Your task to perform on an android device: Search for the best rated wireless headphones on Amazon. Image 0: 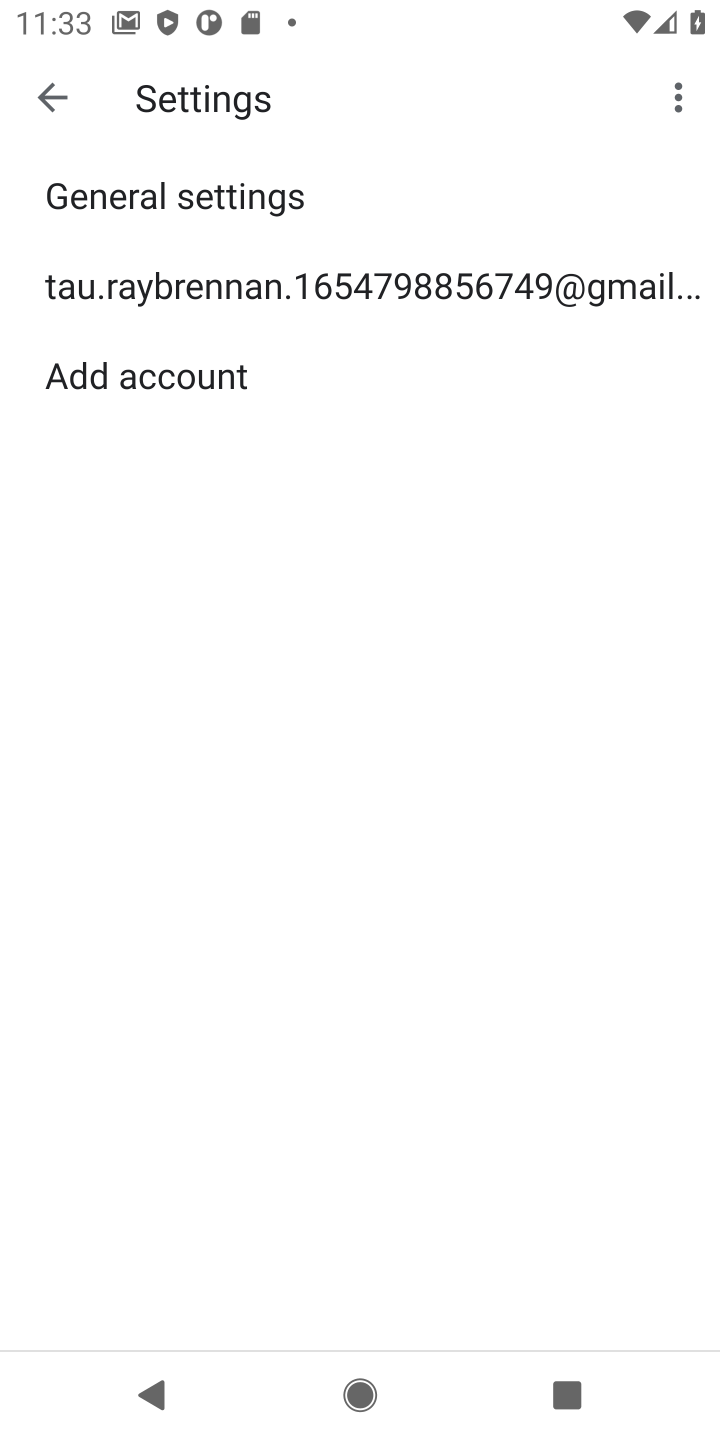
Step 0: press home button
Your task to perform on an android device: Search for the best rated wireless headphones on Amazon. Image 1: 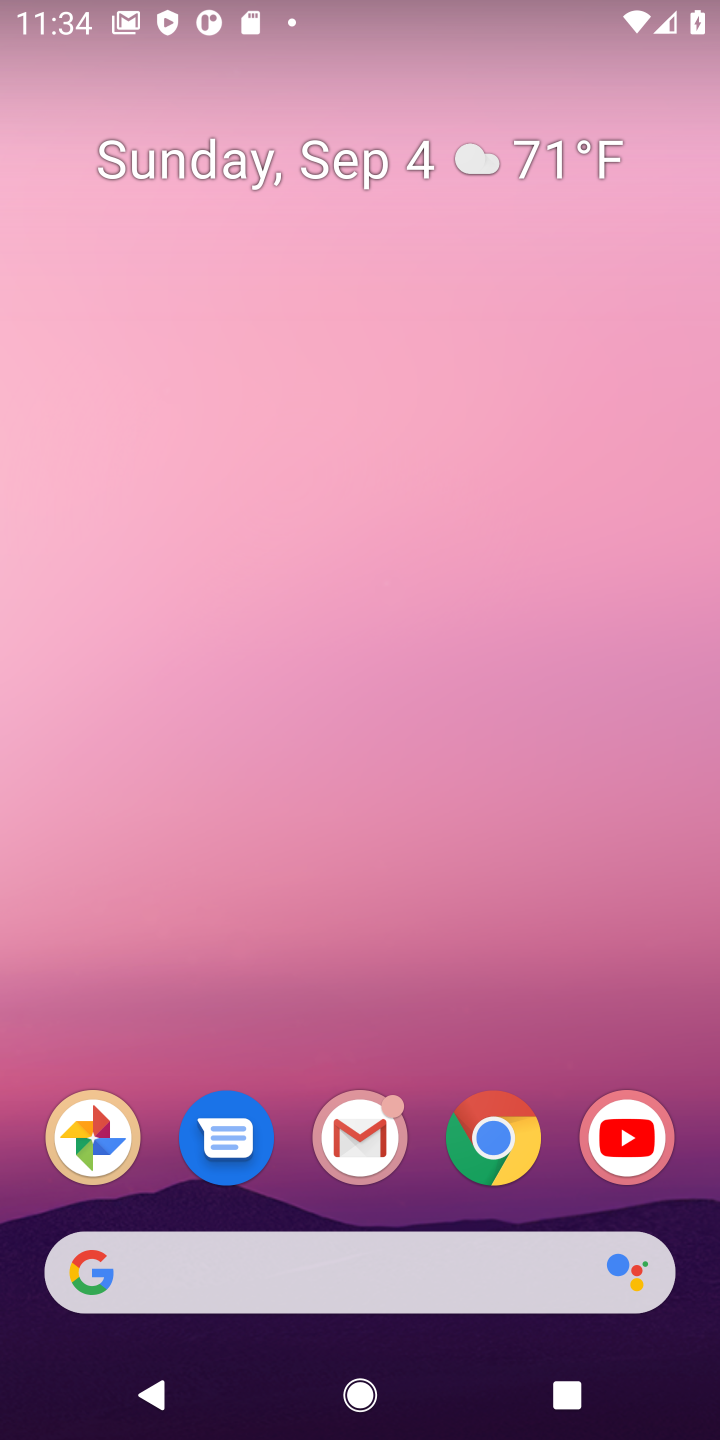
Step 1: click (499, 1132)
Your task to perform on an android device: Search for the best rated wireless headphones on Amazon. Image 2: 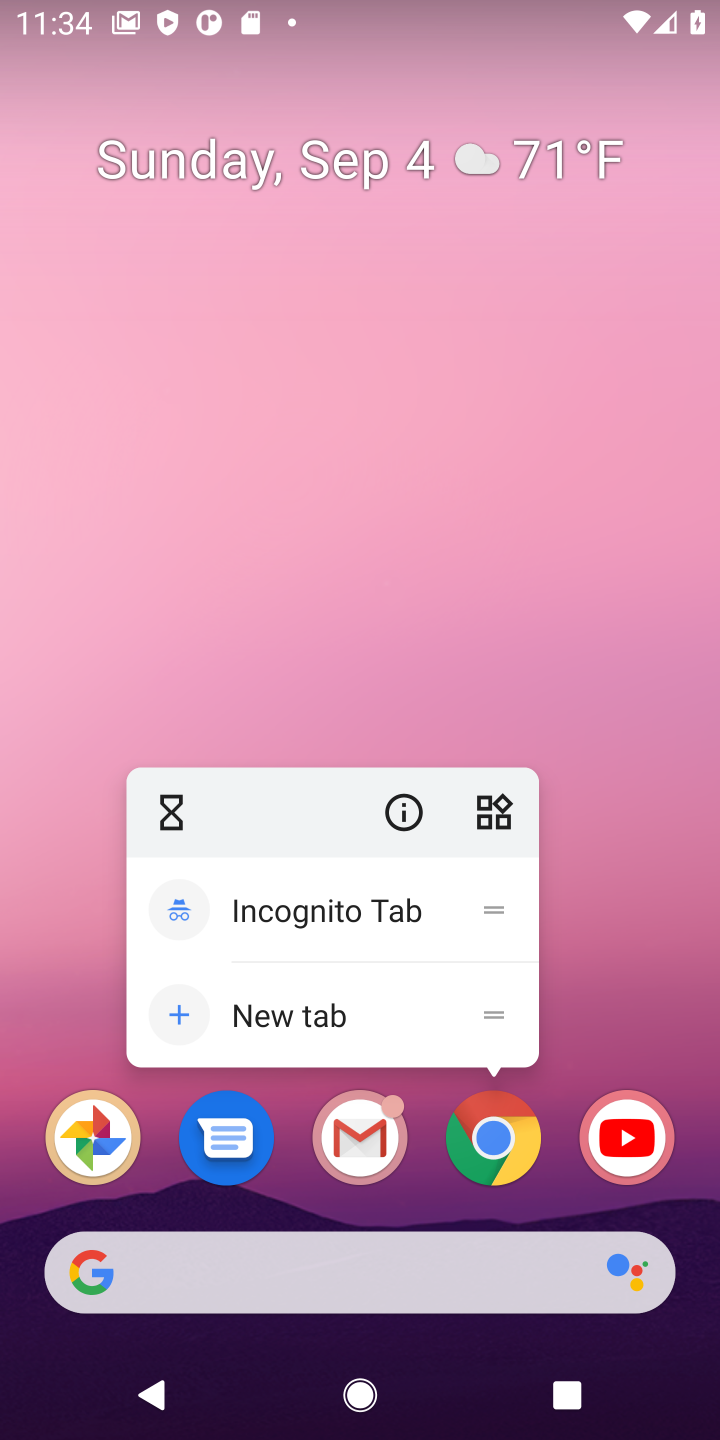
Step 2: click (509, 1132)
Your task to perform on an android device: Search for the best rated wireless headphones on Amazon. Image 3: 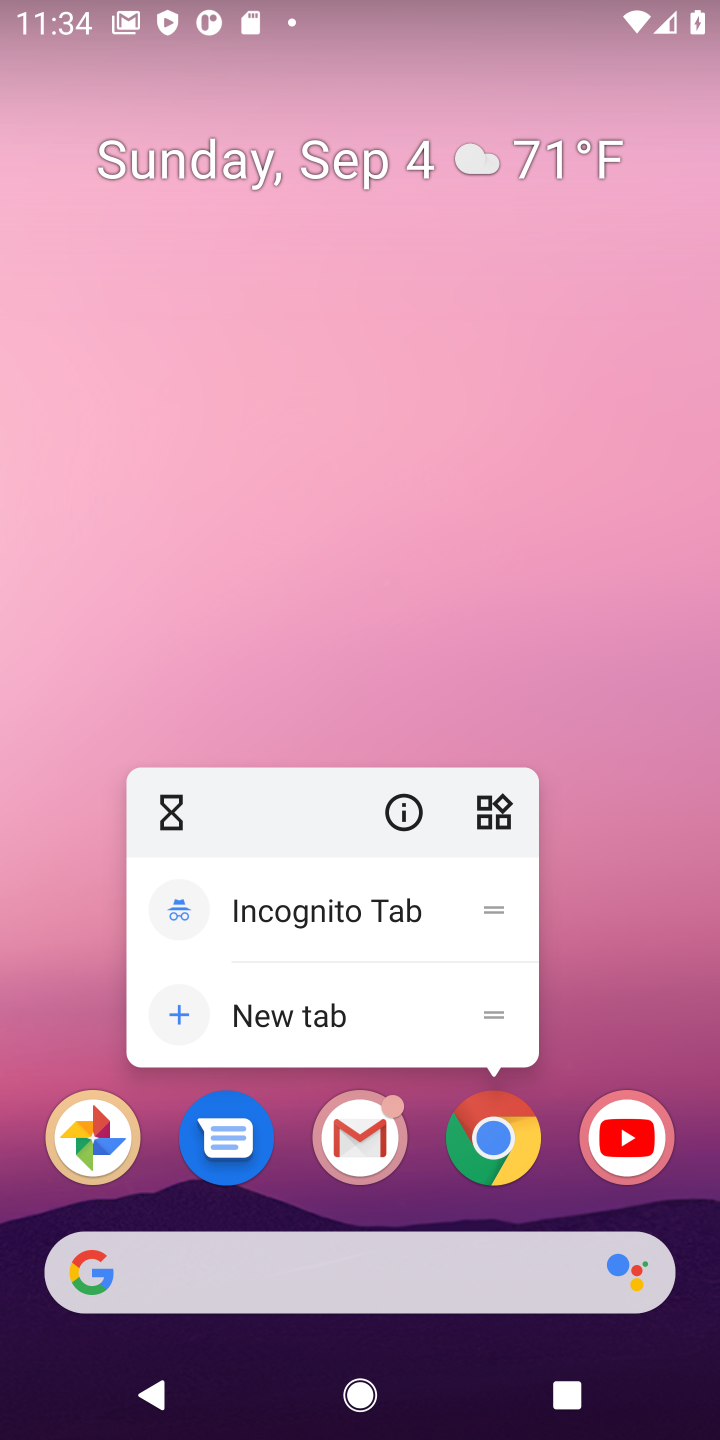
Step 3: click (470, 1158)
Your task to perform on an android device: Search for the best rated wireless headphones on Amazon. Image 4: 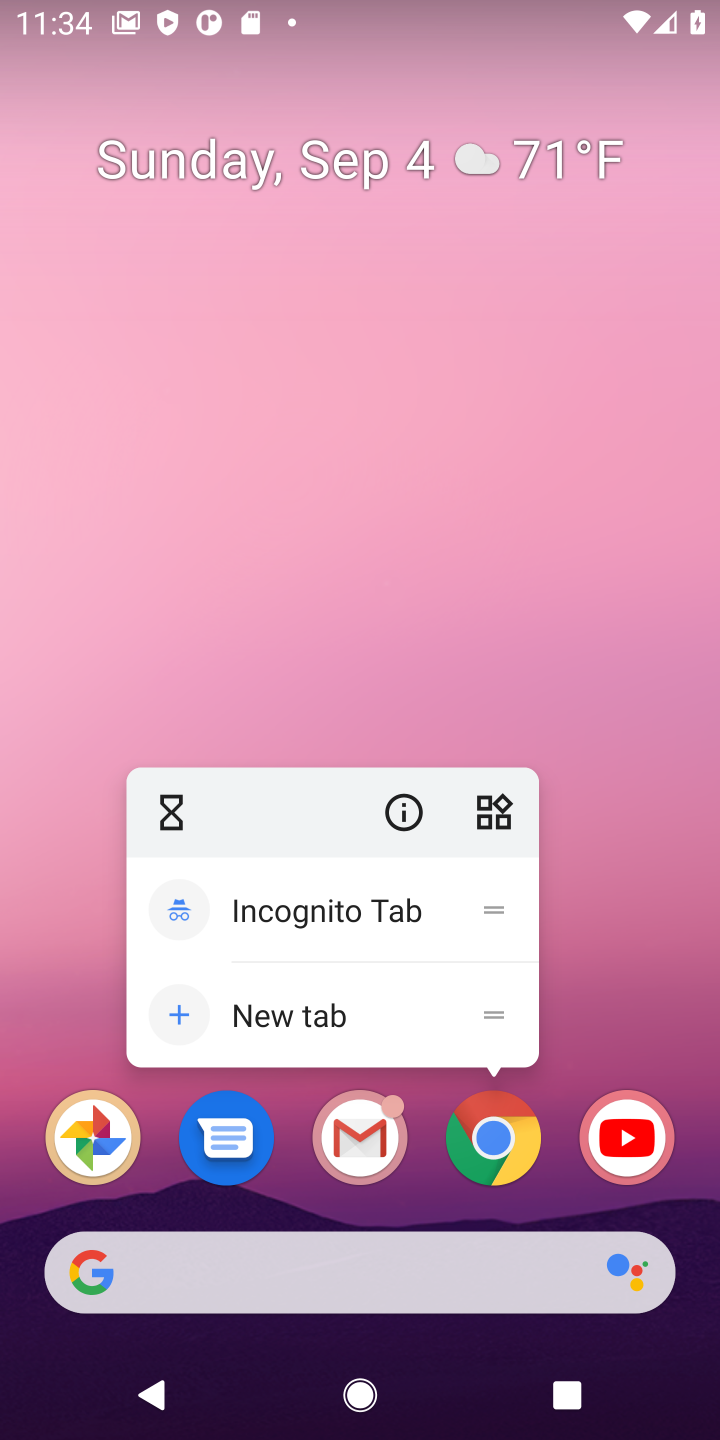
Step 4: click (517, 1141)
Your task to perform on an android device: Search for the best rated wireless headphones on Amazon. Image 5: 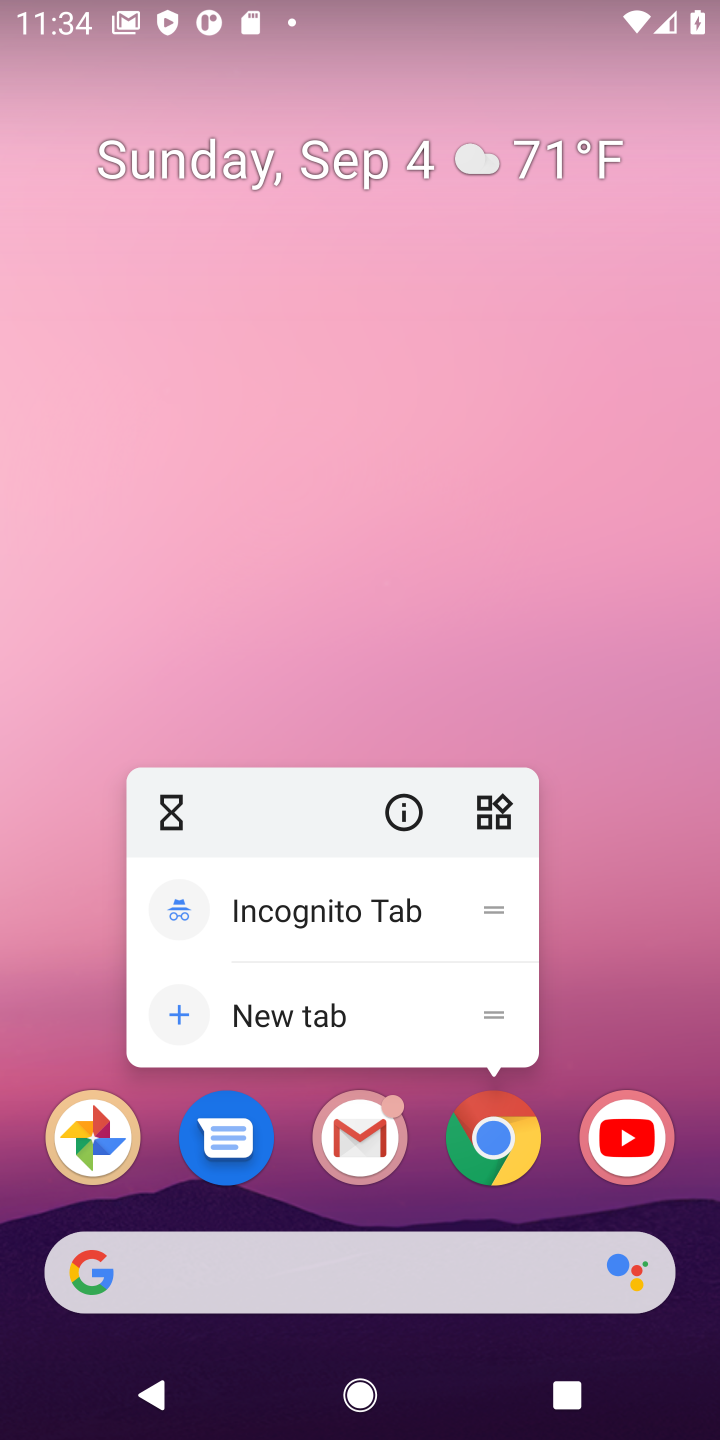
Step 5: click (517, 1141)
Your task to perform on an android device: Search for the best rated wireless headphones on Amazon. Image 6: 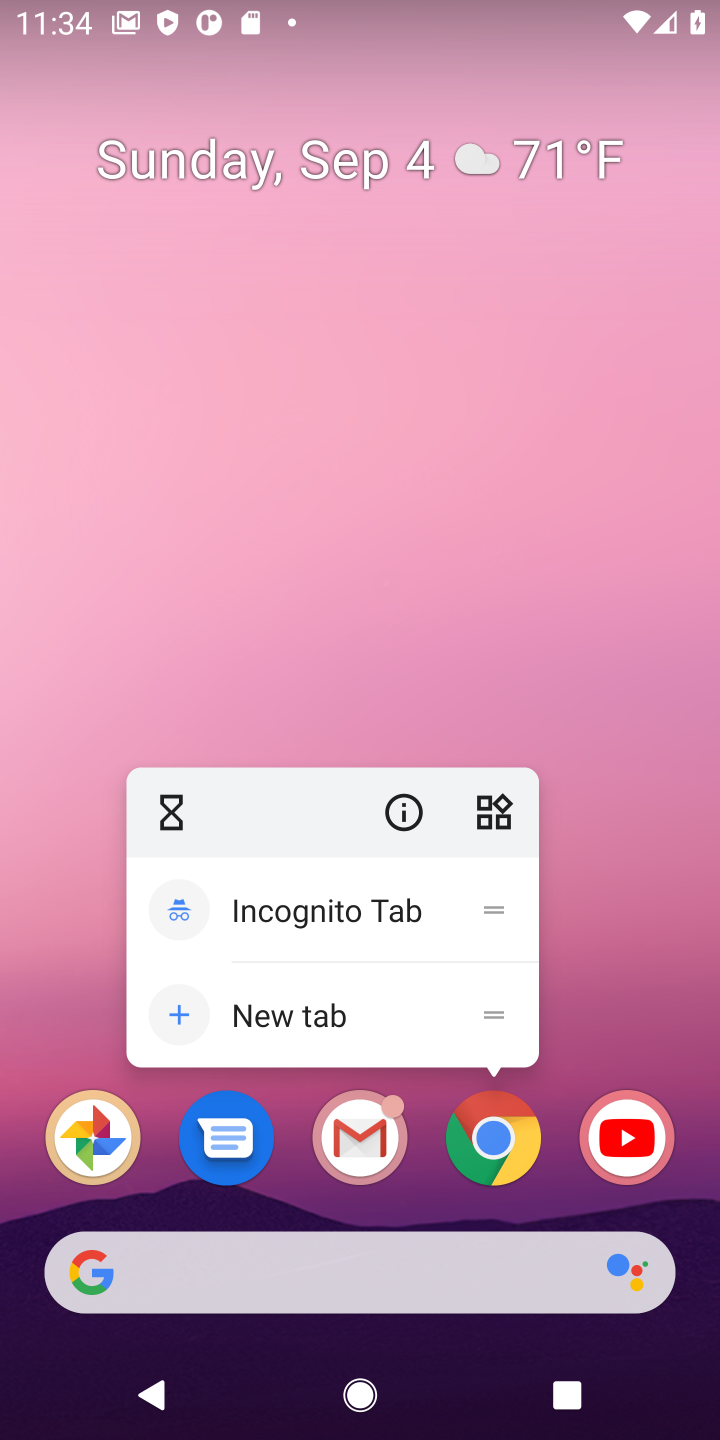
Step 6: click (511, 1133)
Your task to perform on an android device: Search for the best rated wireless headphones on Amazon. Image 7: 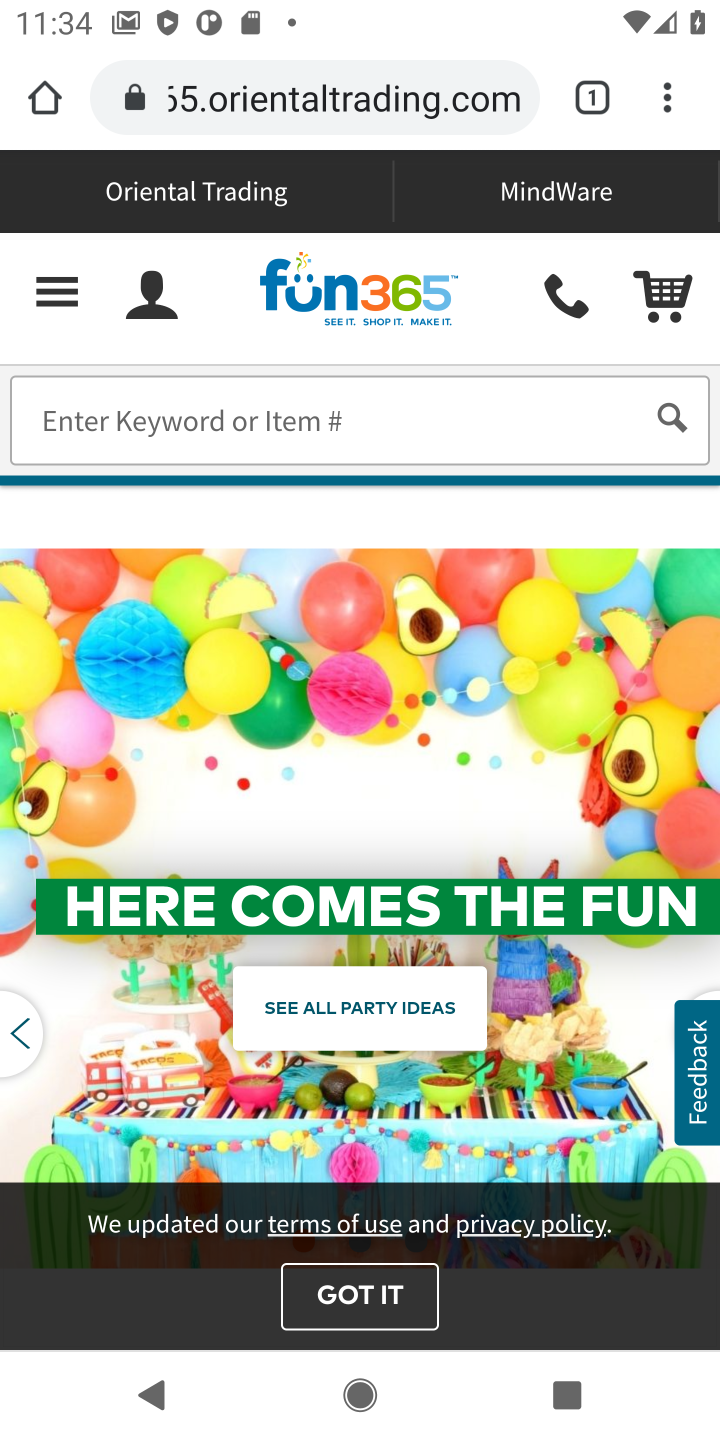
Step 7: click (413, 109)
Your task to perform on an android device: Search for the best rated wireless headphones on Amazon. Image 8: 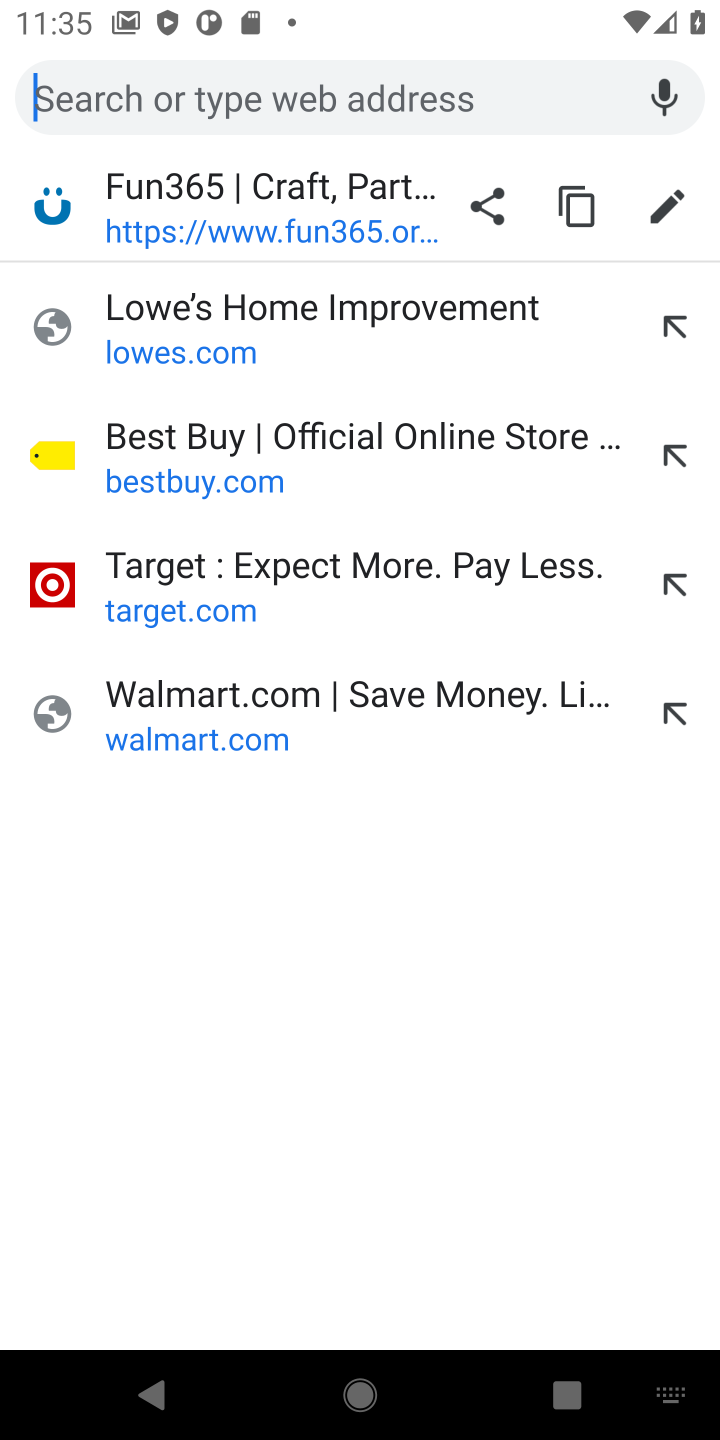
Step 8: type "amazon"
Your task to perform on an android device: Search for the best rated wireless headphones on Amazon. Image 9: 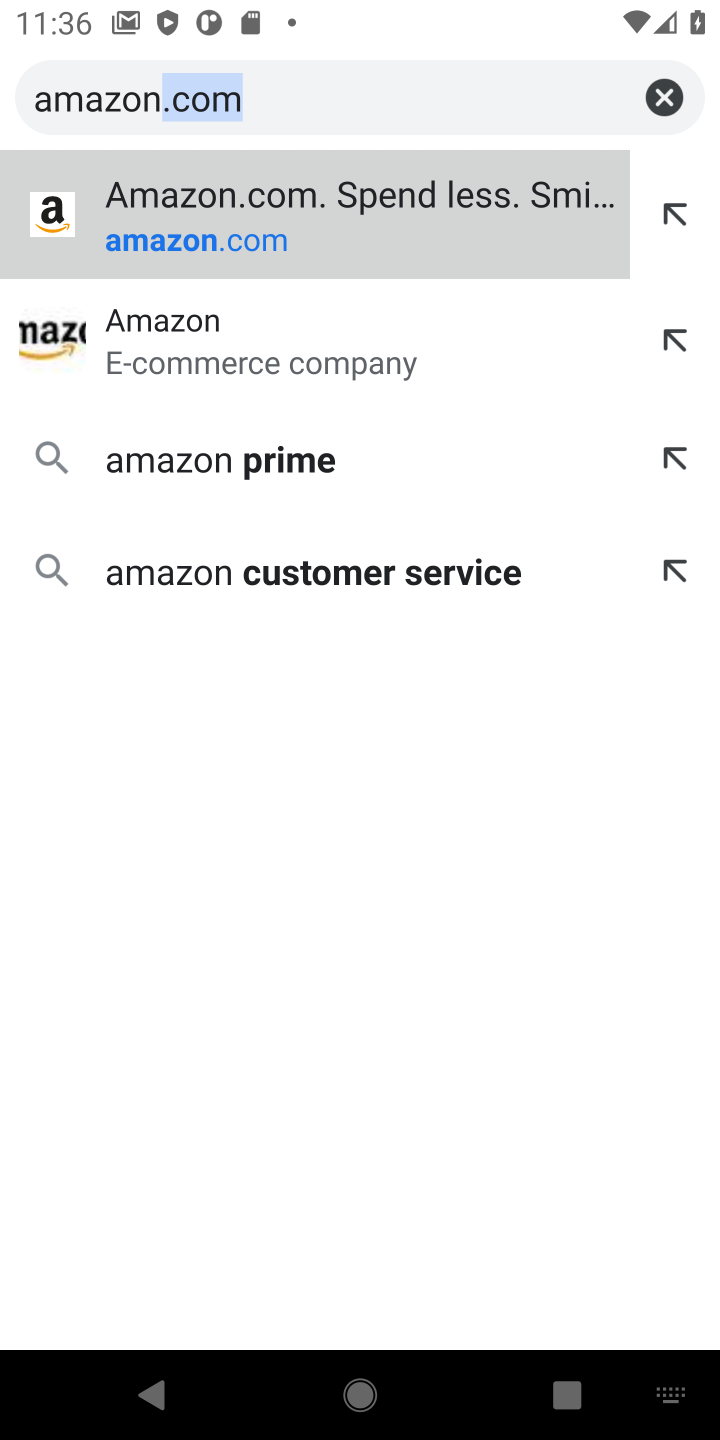
Step 9: click (379, 166)
Your task to perform on an android device: Search for the best rated wireless headphones on Amazon. Image 10: 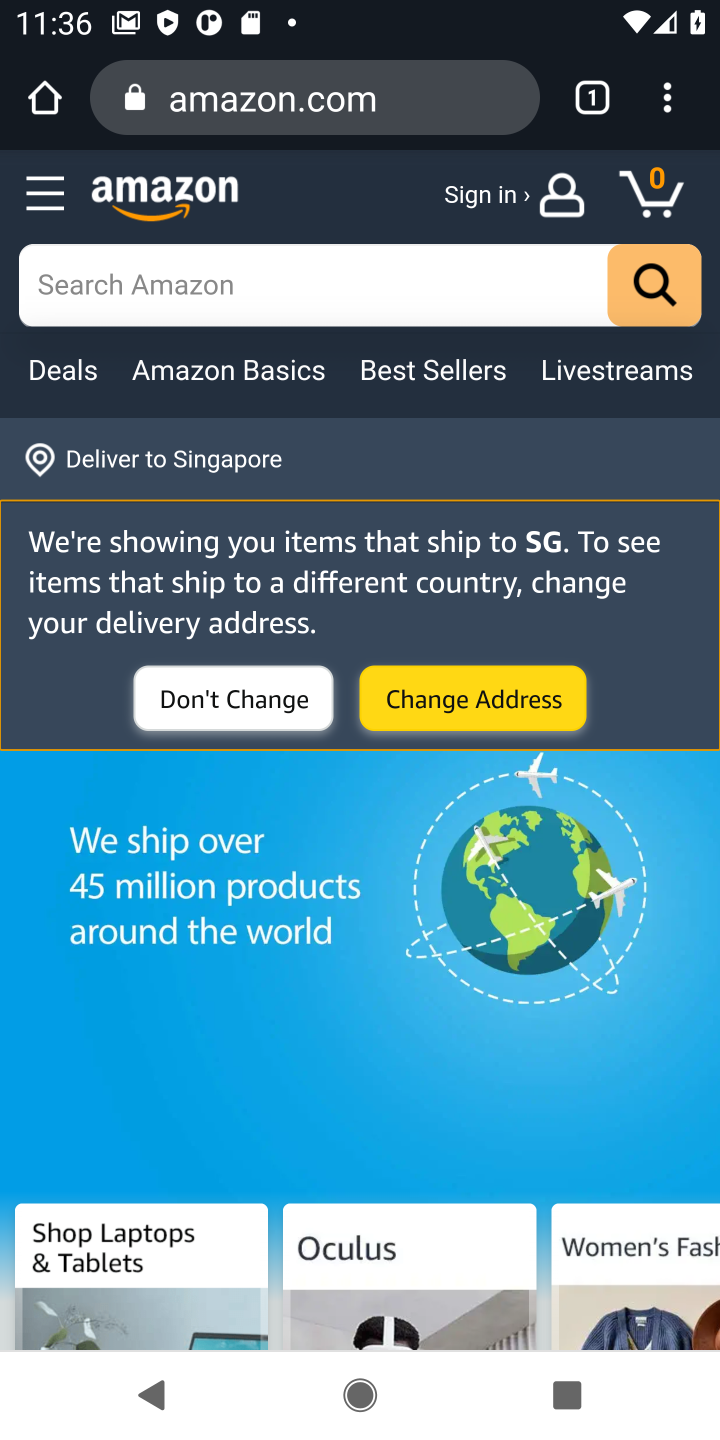
Step 10: click (429, 304)
Your task to perform on an android device: Search for the best rated wireless headphones on Amazon. Image 11: 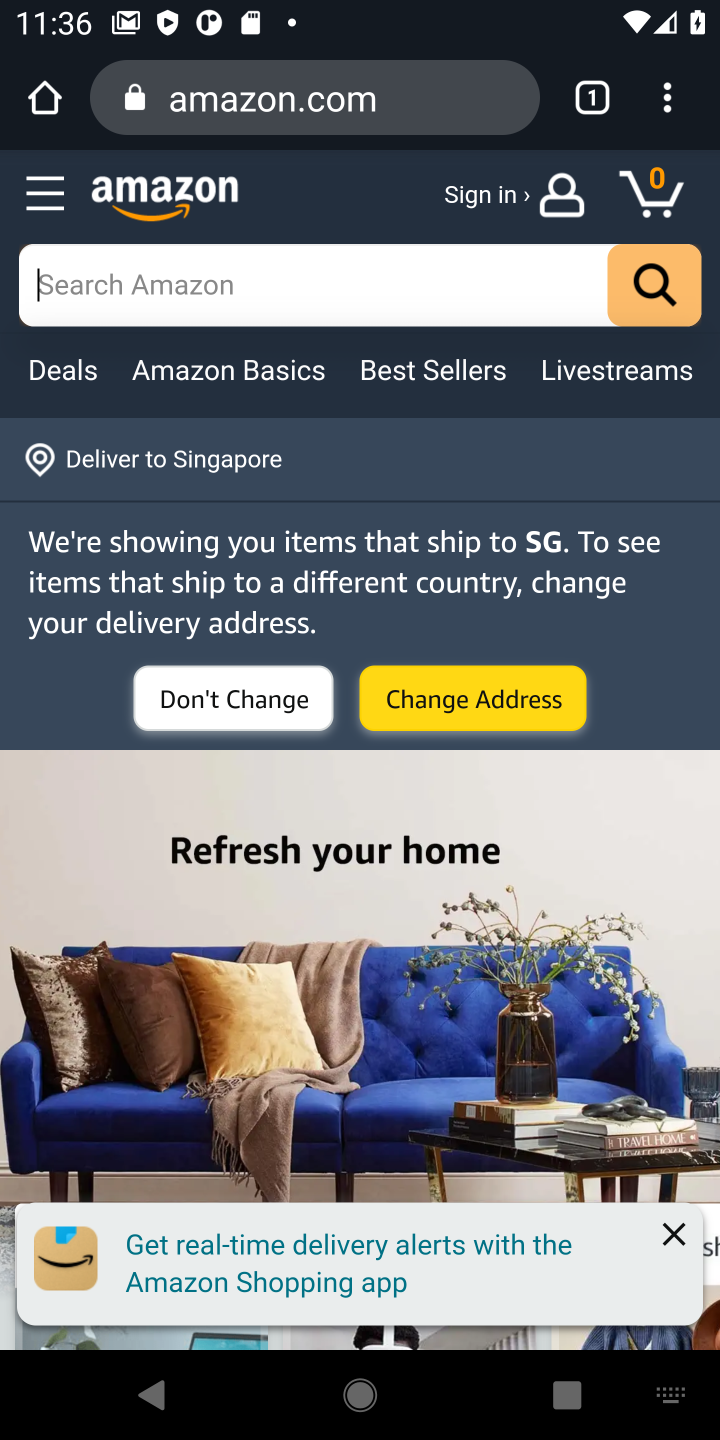
Step 11: type "best rated wireless headphones"
Your task to perform on an android device: Search for the best rated wireless headphones on Amazon. Image 12: 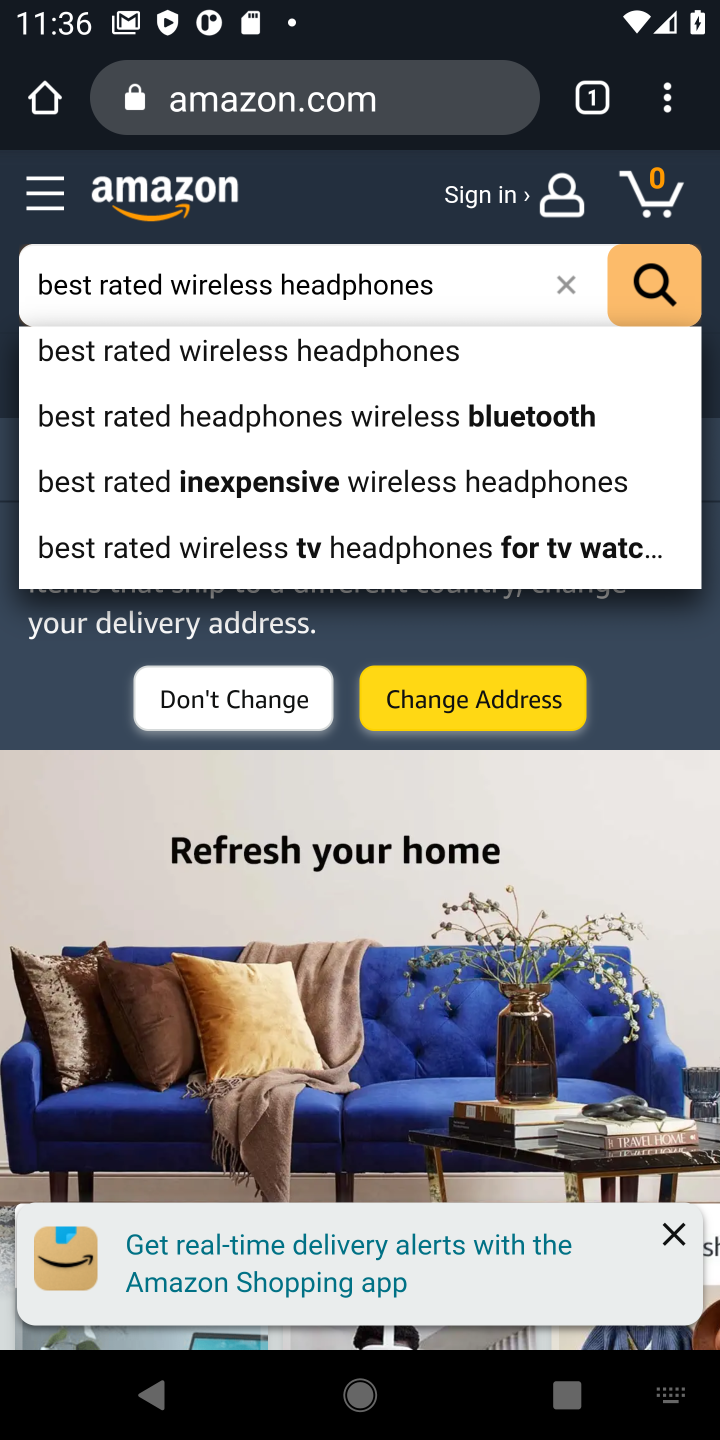
Step 12: click (308, 358)
Your task to perform on an android device: Search for the best rated wireless headphones on Amazon. Image 13: 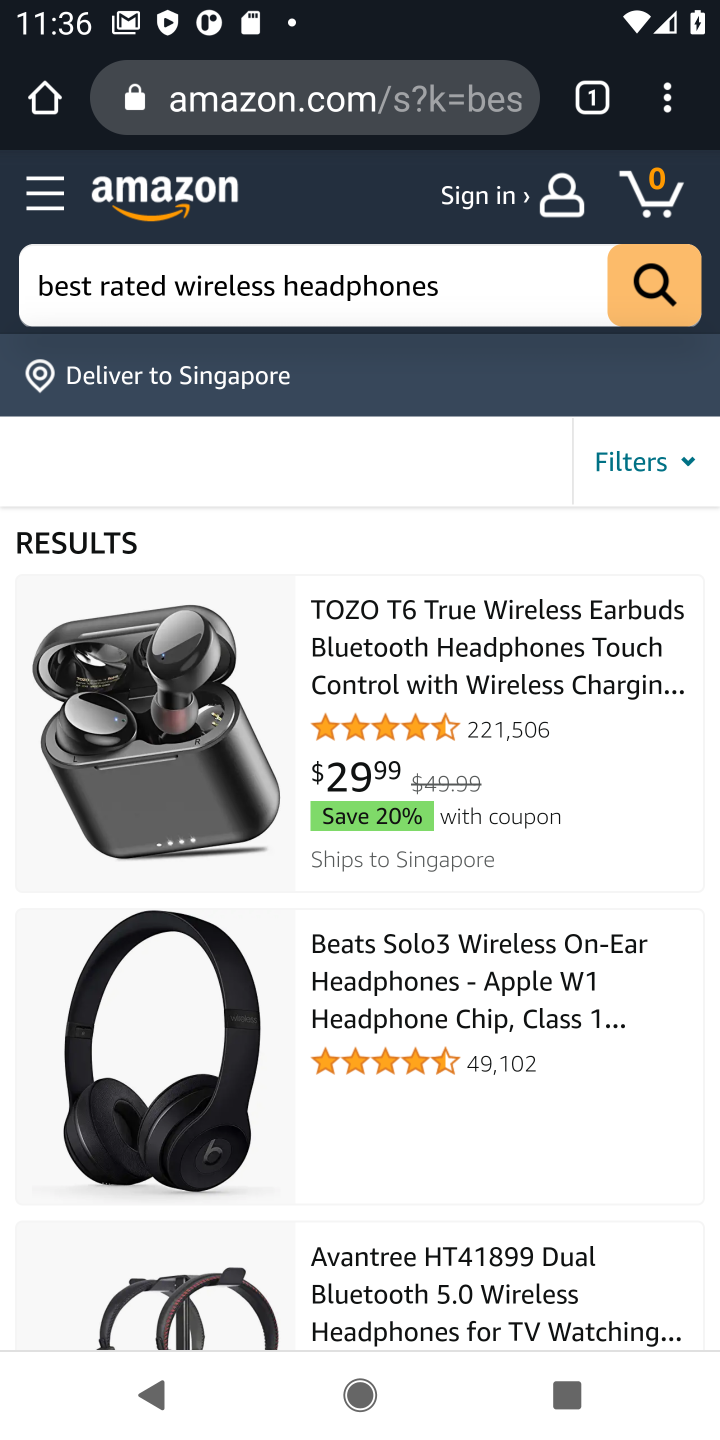
Step 13: press enter
Your task to perform on an android device: Search for the best rated wireless headphones on Amazon. Image 14: 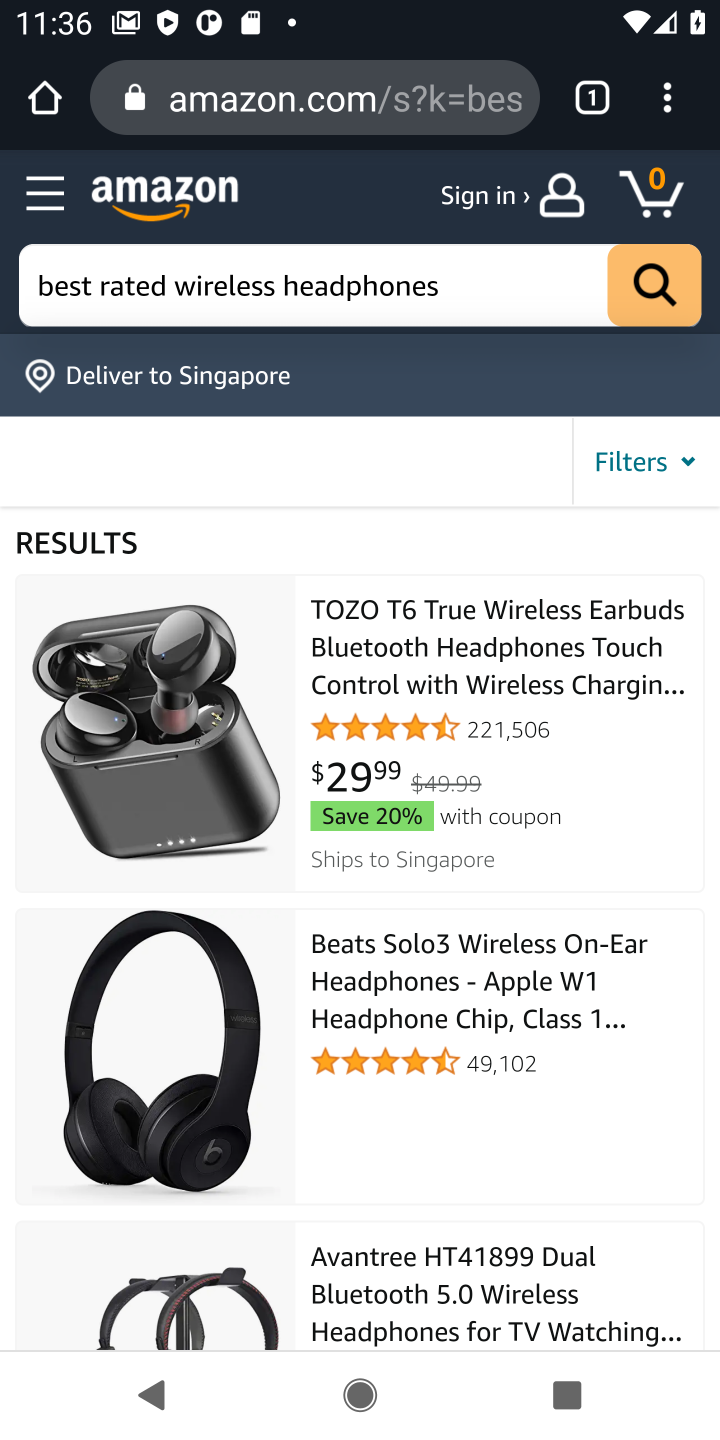
Step 14: task complete